Your task to perform on an android device: toggle location history Image 0: 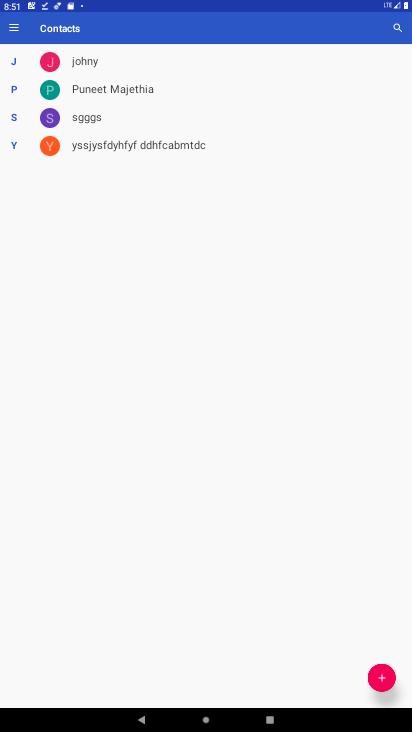
Step 0: press home button
Your task to perform on an android device: toggle location history Image 1: 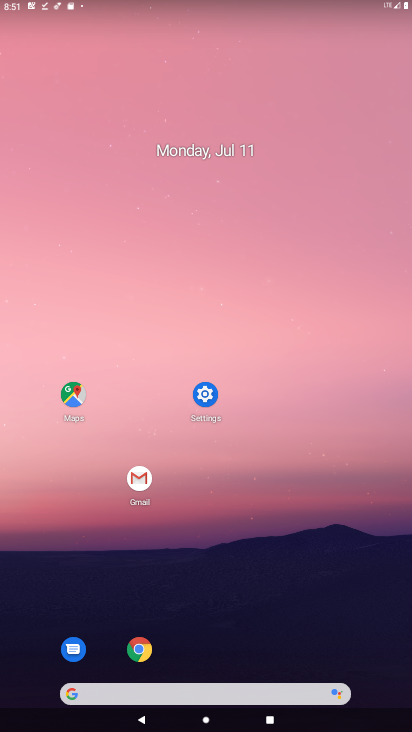
Step 1: click (206, 389)
Your task to perform on an android device: toggle location history Image 2: 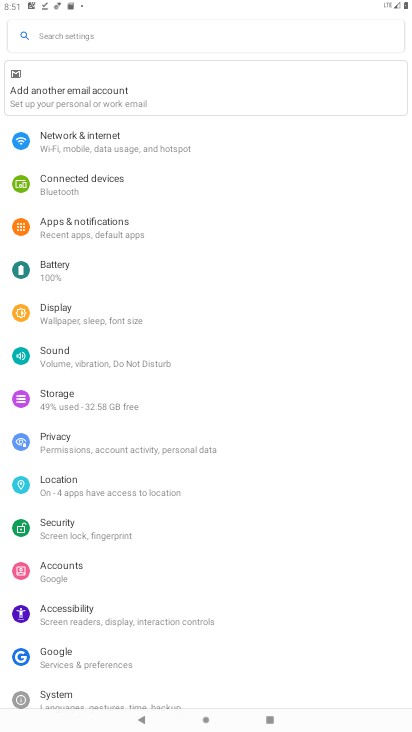
Step 2: click (94, 481)
Your task to perform on an android device: toggle location history Image 3: 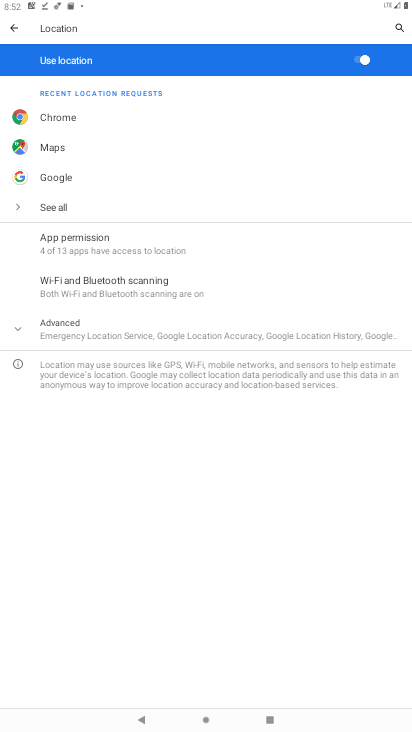
Step 3: click (16, 328)
Your task to perform on an android device: toggle location history Image 4: 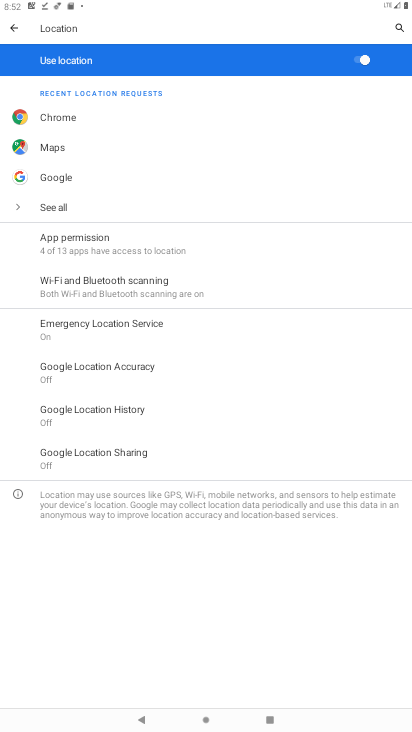
Step 4: click (60, 410)
Your task to perform on an android device: toggle location history Image 5: 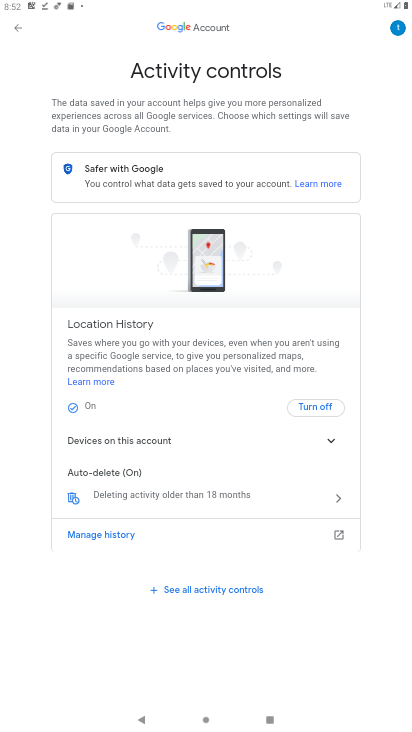
Step 5: click (309, 408)
Your task to perform on an android device: toggle location history Image 6: 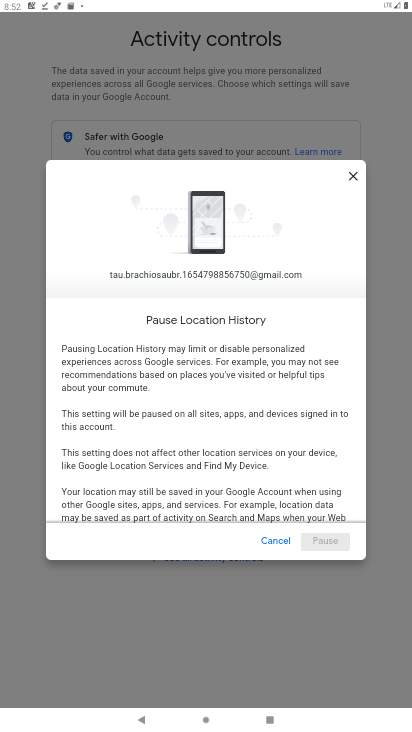
Step 6: drag from (279, 479) to (290, 282)
Your task to perform on an android device: toggle location history Image 7: 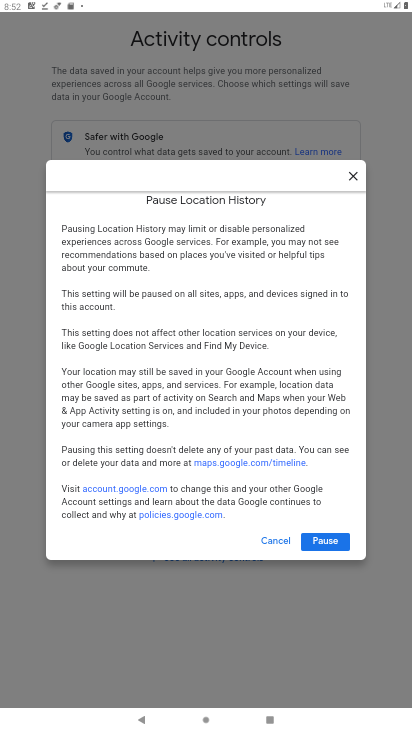
Step 7: click (318, 536)
Your task to perform on an android device: toggle location history Image 8: 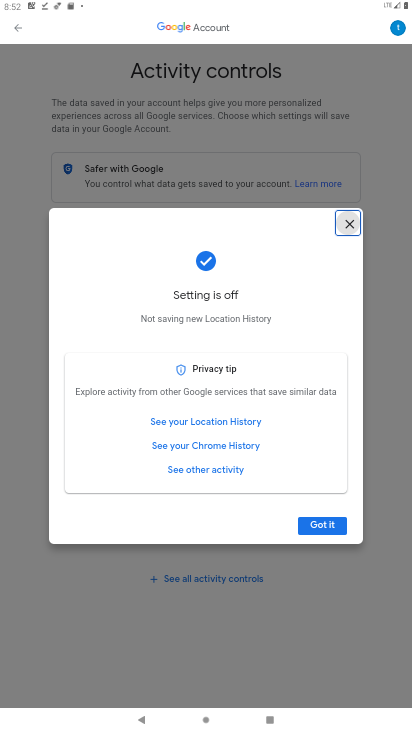
Step 8: click (312, 522)
Your task to perform on an android device: toggle location history Image 9: 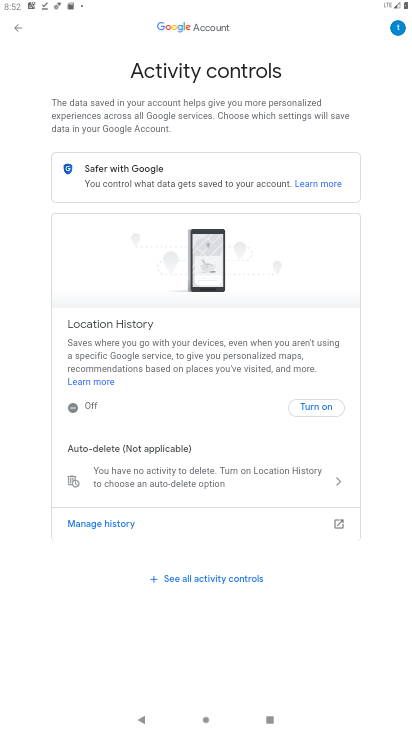
Step 9: task complete